Your task to perform on an android device: turn off wifi Image 0: 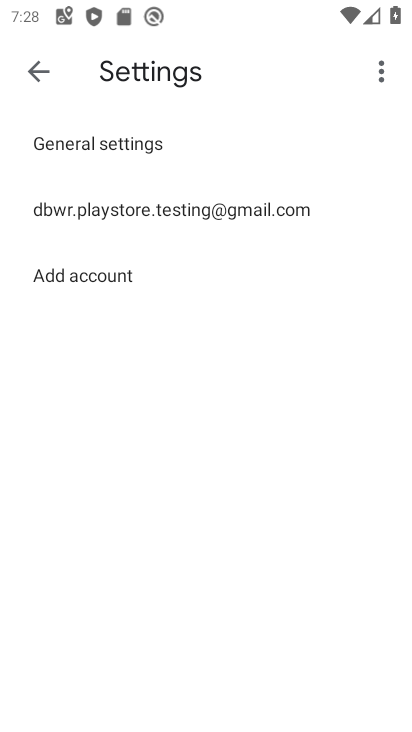
Step 0: press home button
Your task to perform on an android device: turn off wifi Image 1: 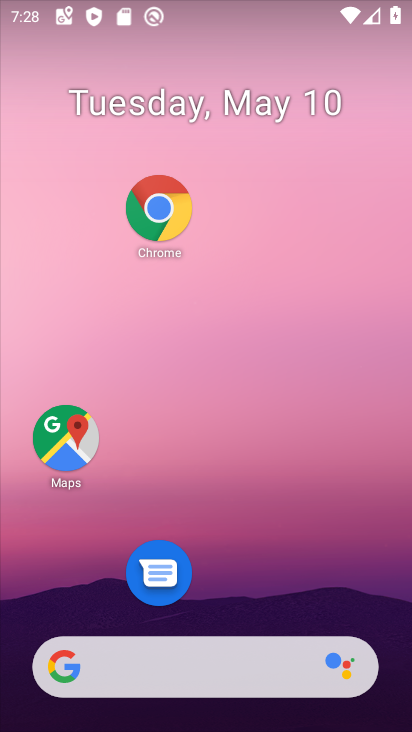
Step 1: drag from (254, 700) to (245, 368)
Your task to perform on an android device: turn off wifi Image 2: 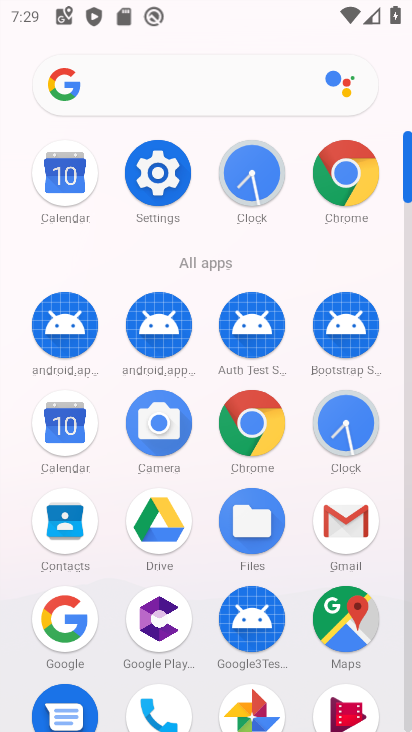
Step 2: click (153, 162)
Your task to perform on an android device: turn off wifi Image 3: 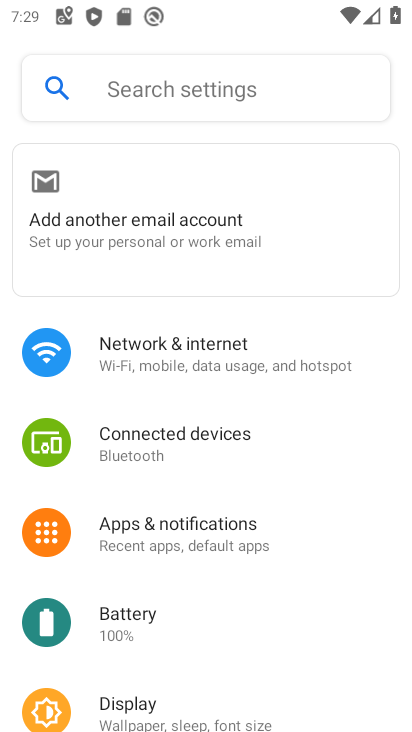
Step 3: click (180, 346)
Your task to perform on an android device: turn off wifi Image 4: 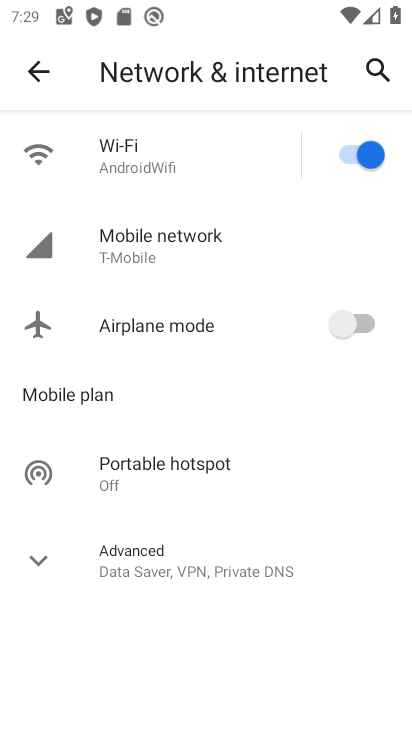
Step 4: click (158, 152)
Your task to perform on an android device: turn off wifi Image 5: 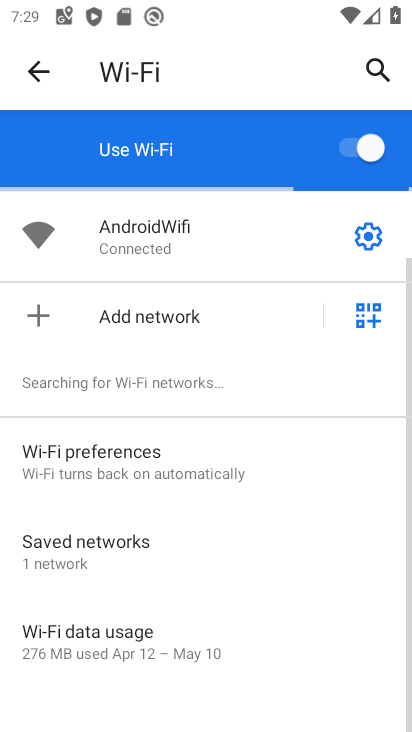
Step 5: click (354, 160)
Your task to perform on an android device: turn off wifi Image 6: 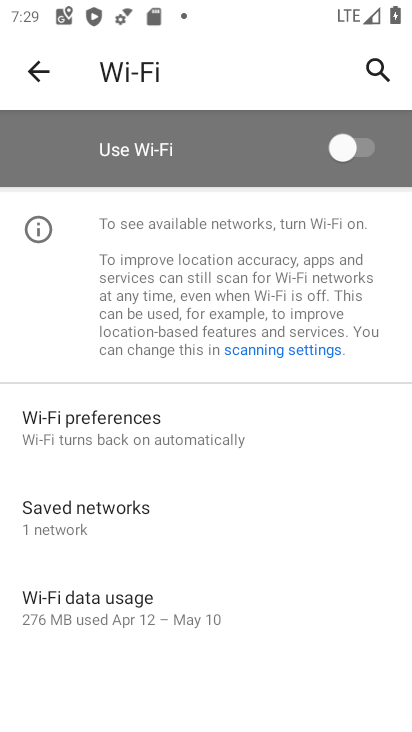
Step 6: task complete